Your task to perform on an android device: toggle javascript in the chrome app Image 0: 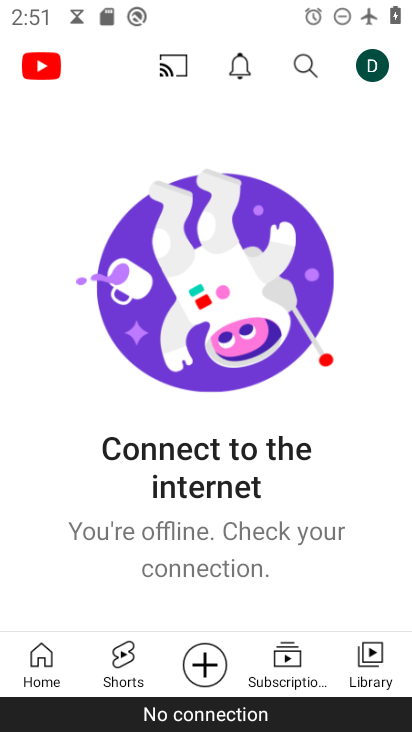
Step 0: task impossible